Your task to perform on an android device: turn pop-ups on in chrome Image 0: 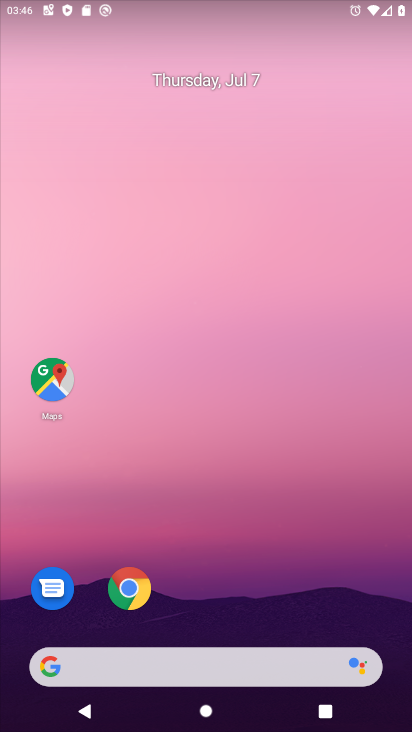
Step 0: click (122, 587)
Your task to perform on an android device: turn pop-ups on in chrome Image 1: 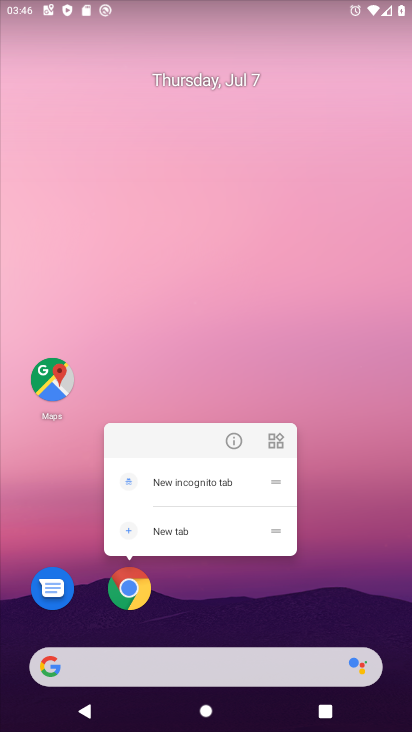
Step 1: click (122, 587)
Your task to perform on an android device: turn pop-ups on in chrome Image 2: 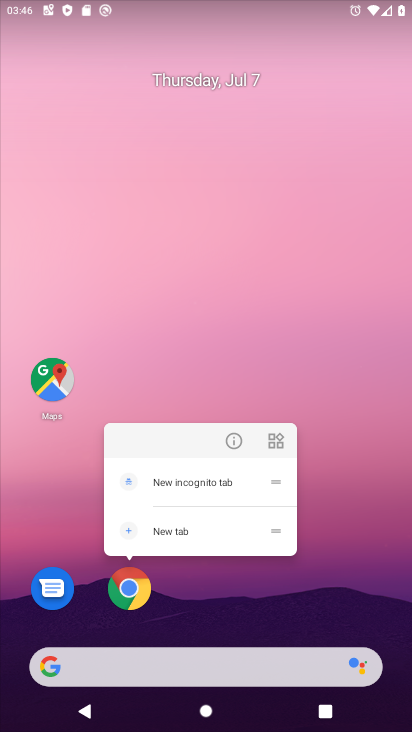
Step 2: click (131, 590)
Your task to perform on an android device: turn pop-ups on in chrome Image 3: 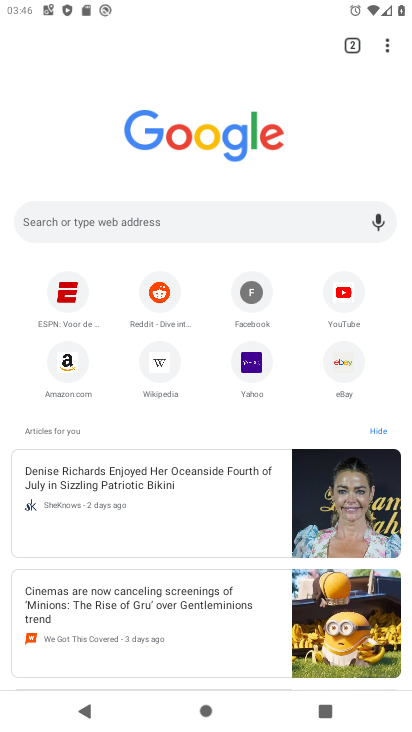
Step 3: click (385, 44)
Your task to perform on an android device: turn pop-ups on in chrome Image 4: 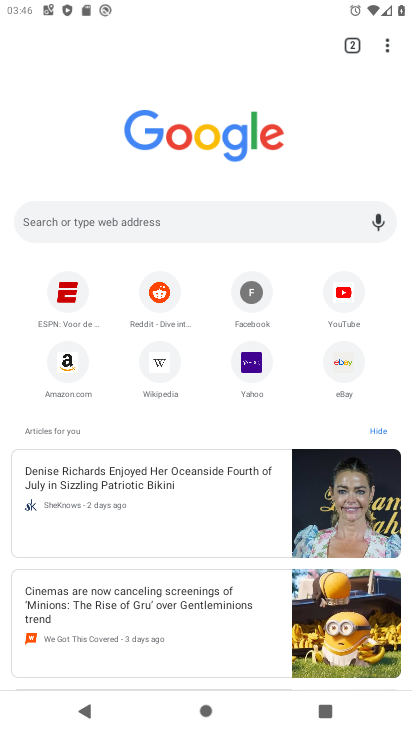
Step 4: click (385, 44)
Your task to perform on an android device: turn pop-ups on in chrome Image 5: 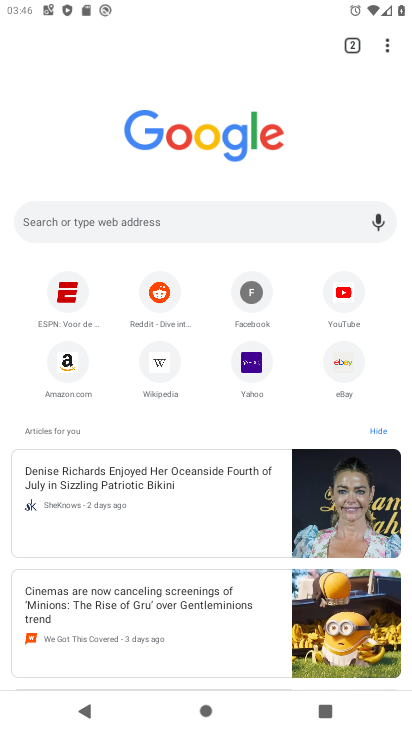
Step 5: click (389, 45)
Your task to perform on an android device: turn pop-ups on in chrome Image 6: 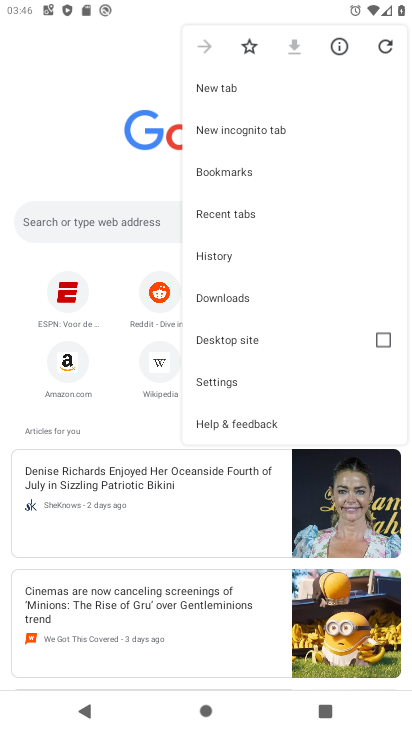
Step 6: click (206, 381)
Your task to perform on an android device: turn pop-ups on in chrome Image 7: 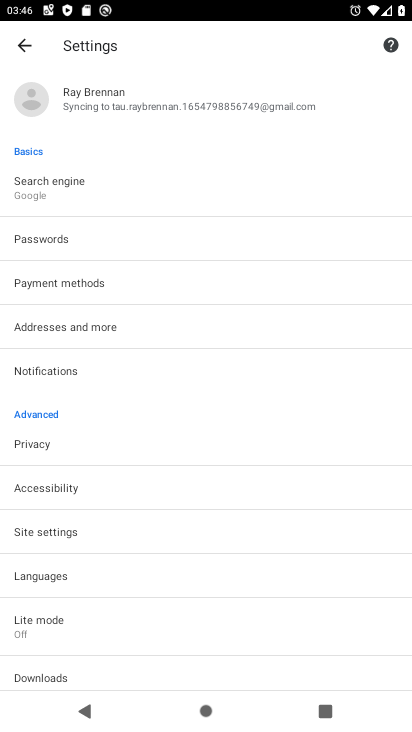
Step 7: drag from (33, 676) to (36, 353)
Your task to perform on an android device: turn pop-ups on in chrome Image 8: 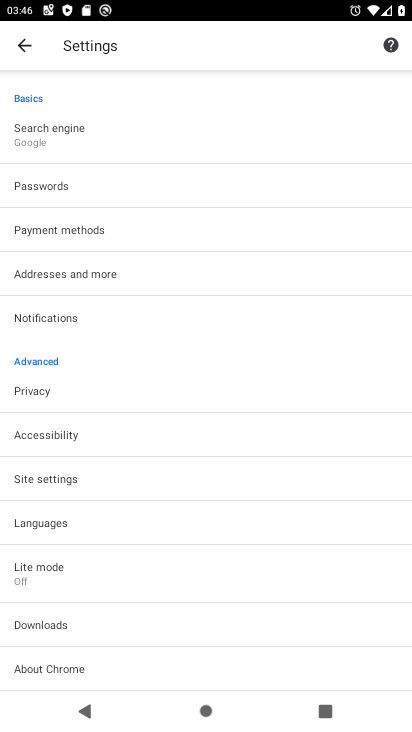
Step 8: drag from (61, 671) to (63, 439)
Your task to perform on an android device: turn pop-ups on in chrome Image 9: 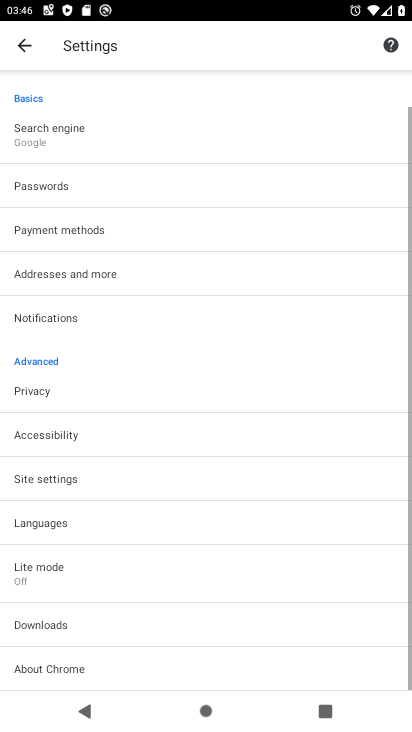
Step 9: click (55, 478)
Your task to perform on an android device: turn pop-ups on in chrome Image 10: 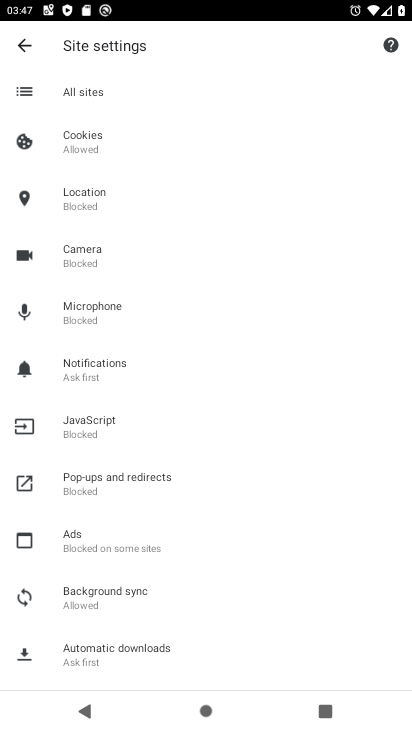
Step 10: click (80, 481)
Your task to perform on an android device: turn pop-ups on in chrome Image 11: 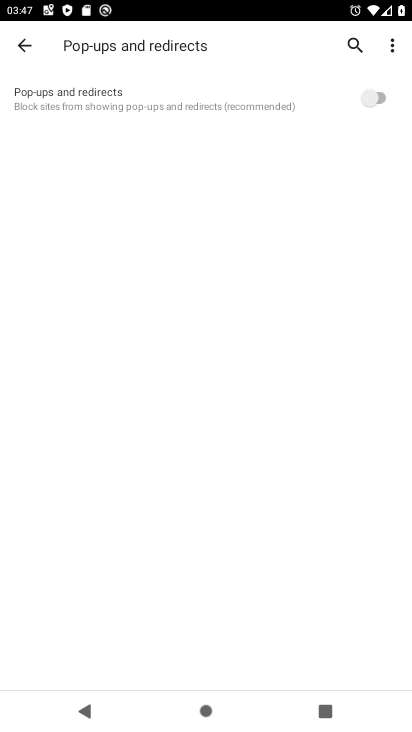
Step 11: click (375, 95)
Your task to perform on an android device: turn pop-ups on in chrome Image 12: 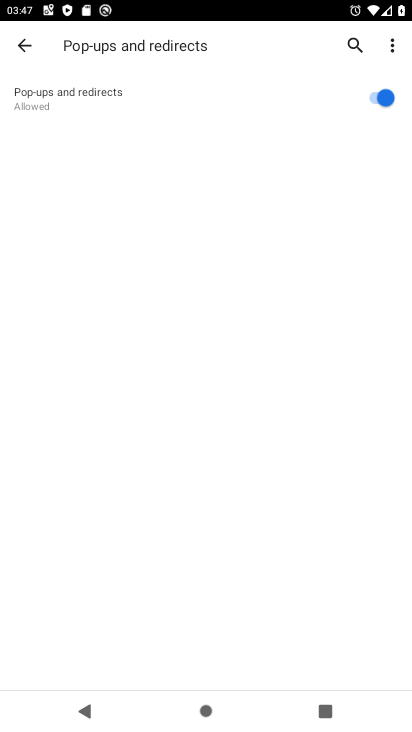
Step 12: task complete